Your task to perform on an android device: Toggle the flashlight Image 0: 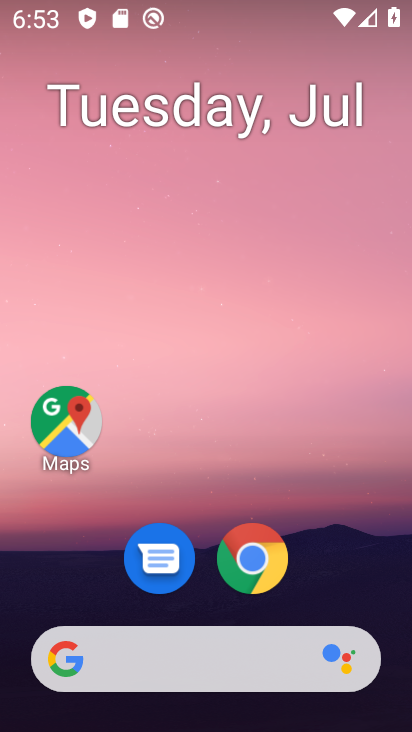
Step 0: drag from (176, 592) to (238, 26)
Your task to perform on an android device: Toggle the flashlight Image 1: 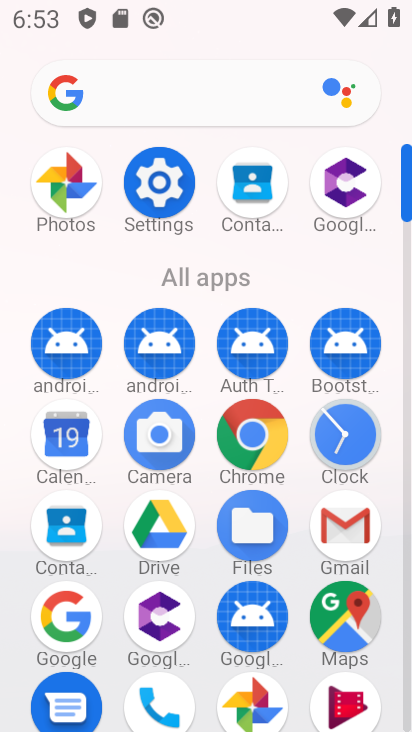
Step 1: click (166, 200)
Your task to perform on an android device: Toggle the flashlight Image 2: 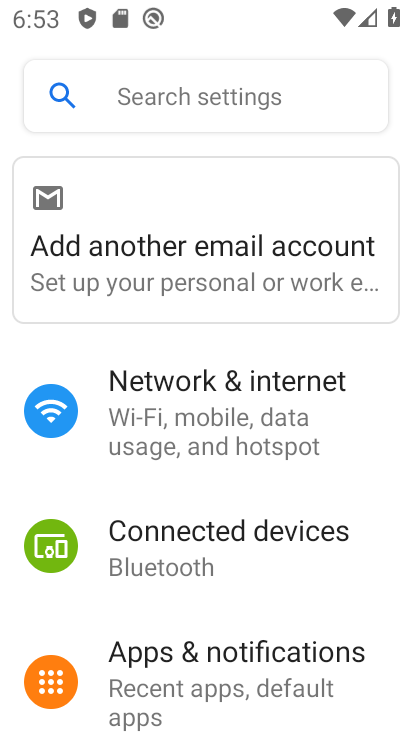
Step 2: click (163, 89)
Your task to perform on an android device: Toggle the flashlight Image 3: 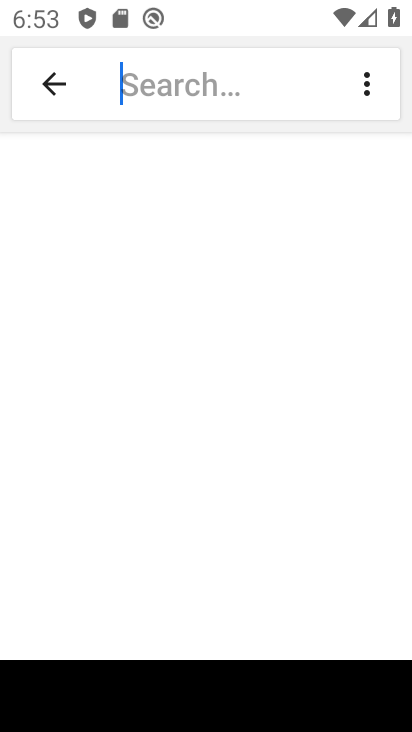
Step 3: type "flashlight"
Your task to perform on an android device: Toggle the flashlight Image 4: 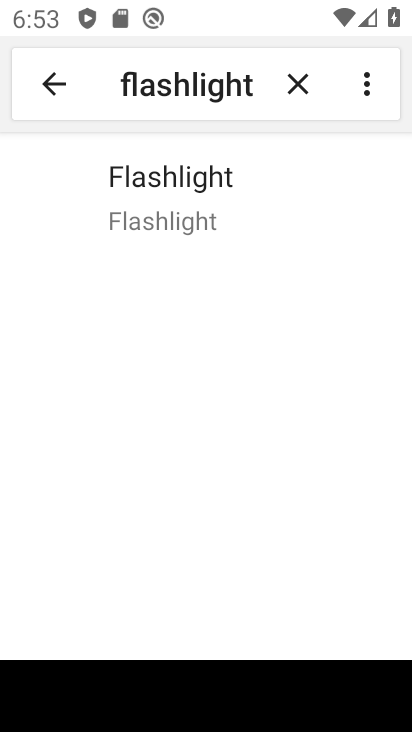
Step 4: click (163, 217)
Your task to perform on an android device: Toggle the flashlight Image 5: 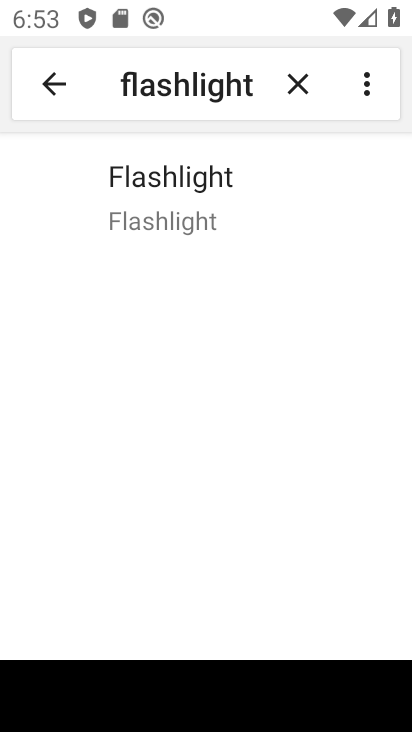
Step 5: task complete